Your task to perform on an android device: delete browsing data in the chrome app Image 0: 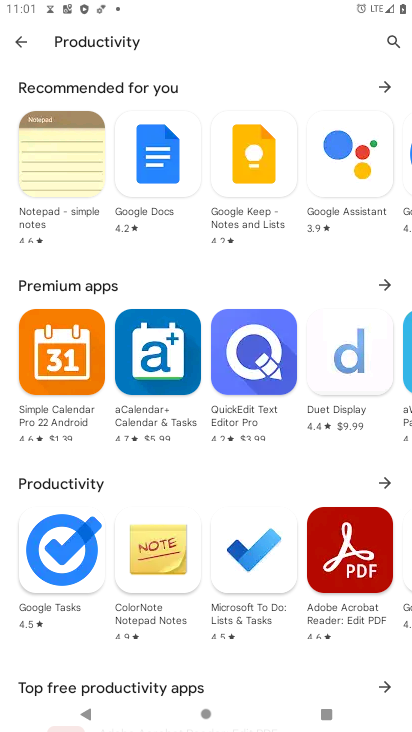
Step 0: press home button
Your task to perform on an android device: delete browsing data in the chrome app Image 1: 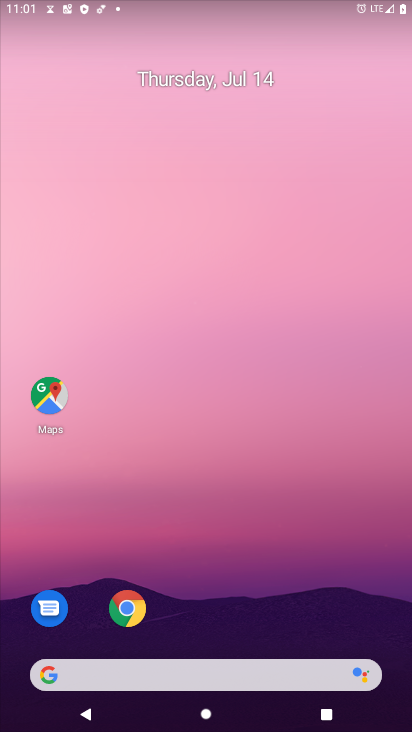
Step 1: click (127, 617)
Your task to perform on an android device: delete browsing data in the chrome app Image 2: 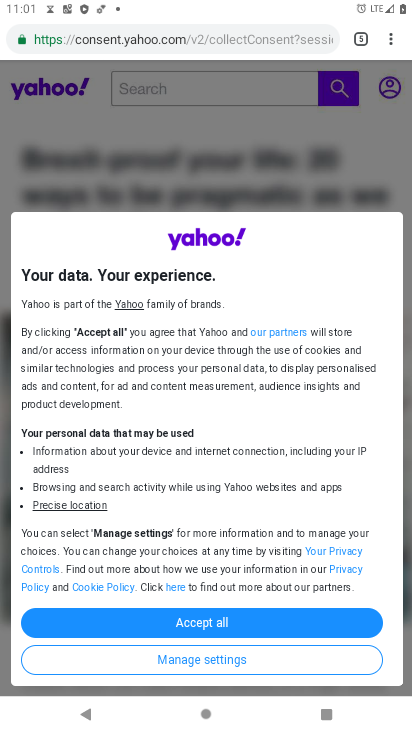
Step 2: click (393, 42)
Your task to perform on an android device: delete browsing data in the chrome app Image 3: 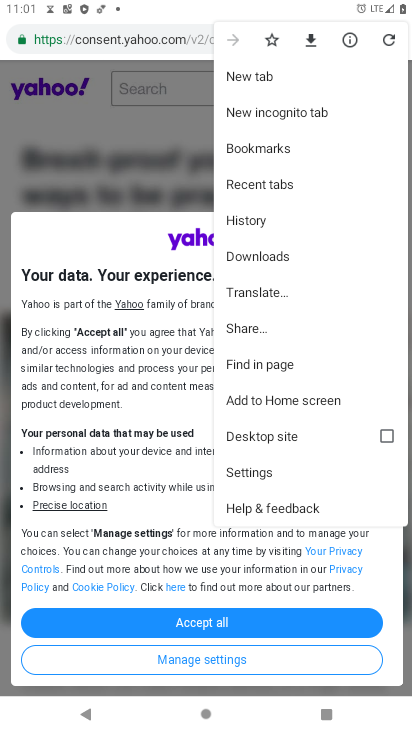
Step 3: click (247, 216)
Your task to perform on an android device: delete browsing data in the chrome app Image 4: 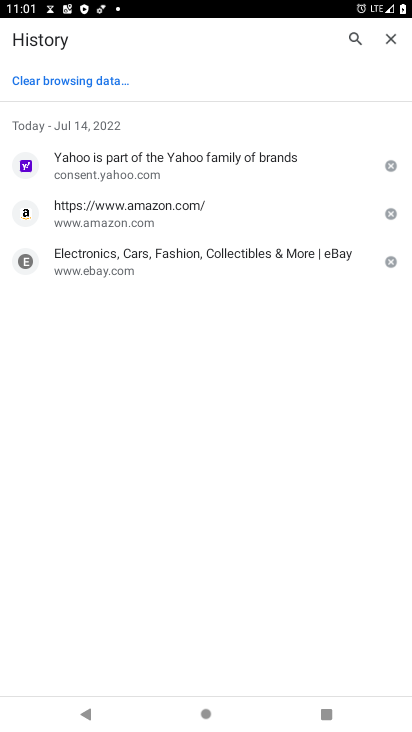
Step 4: click (88, 80)
Your task to perform on an android device: delete browsing data in the chrome app Image 5: 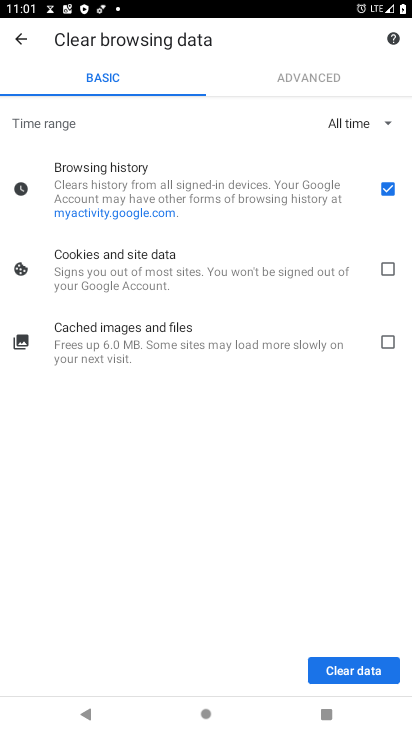
Step 5: click (345, 666)
Your task to perform on an android device: delete browsing data in the chrome app Image 6: 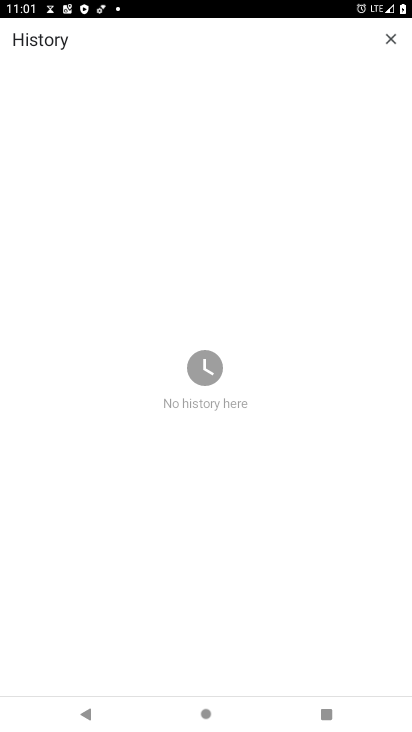
Step 6: task complete